Your task to perform on an android device: add a label to a message in the gmail app Image 0: 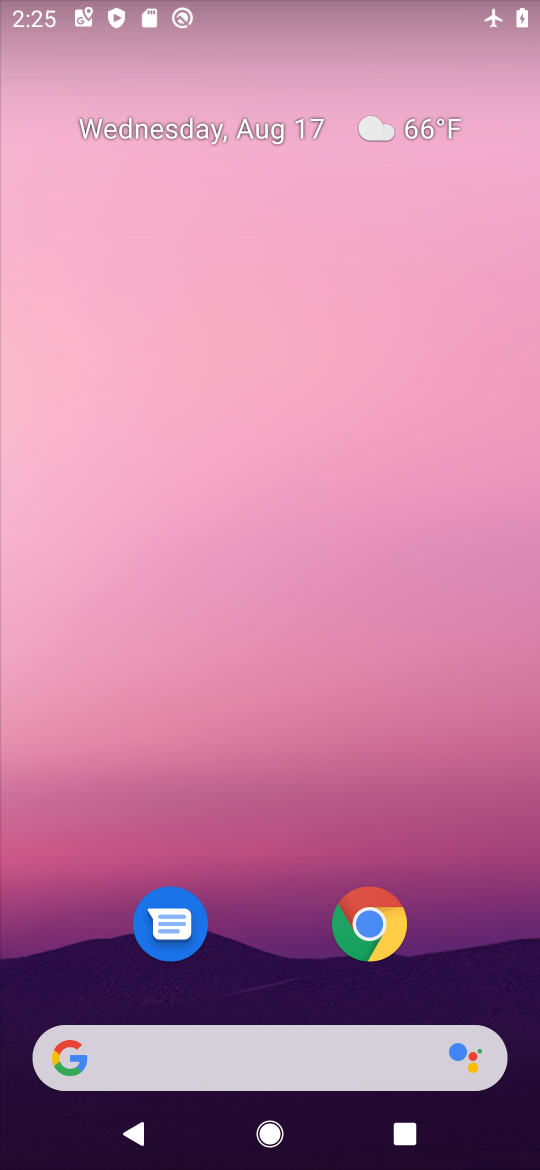
Step 0: press home button
Your task to perform on an android device: add a label to a message in the gmail app Image 1: 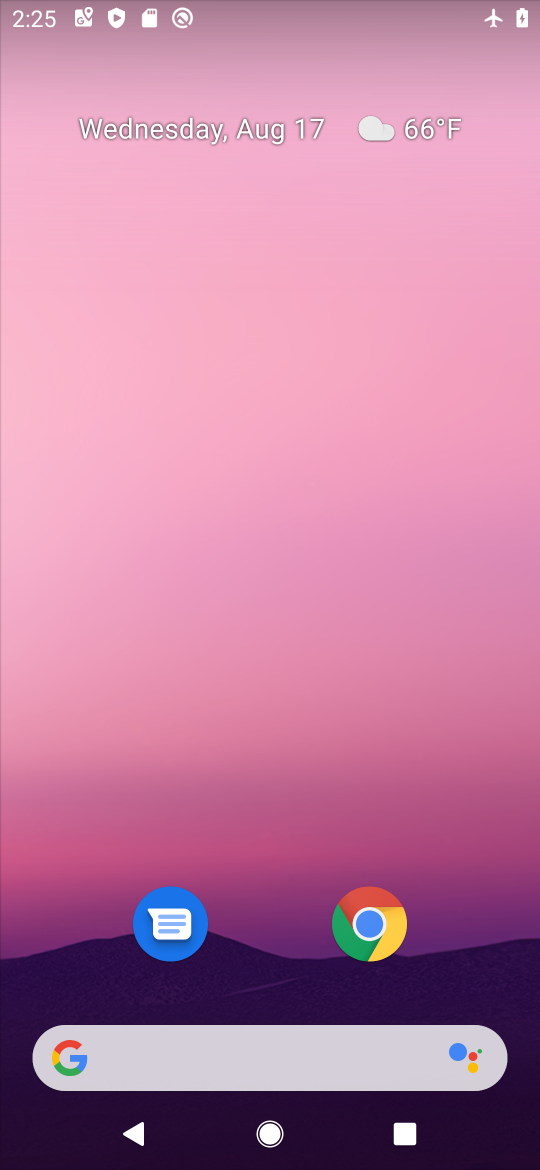
Step 1: drag from (197, 1073) to (238, 211)
Your task to perform on an android device: add a label to a message in the gmail app Image 2: 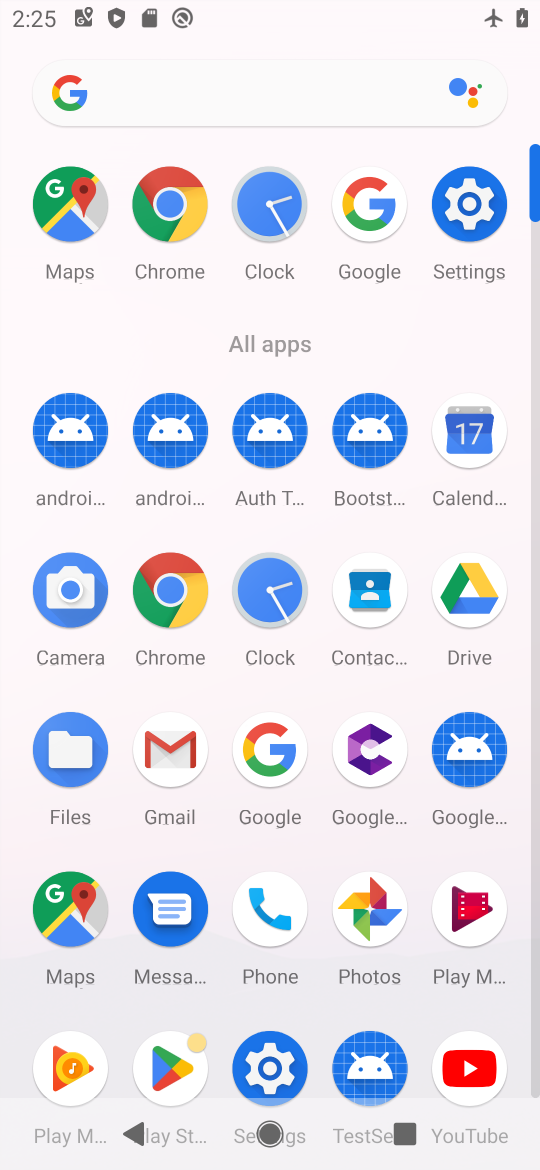
Step 2: click (174, 748)
Your task to perform on an android device: add a label to a message in the gmail app Image 3: 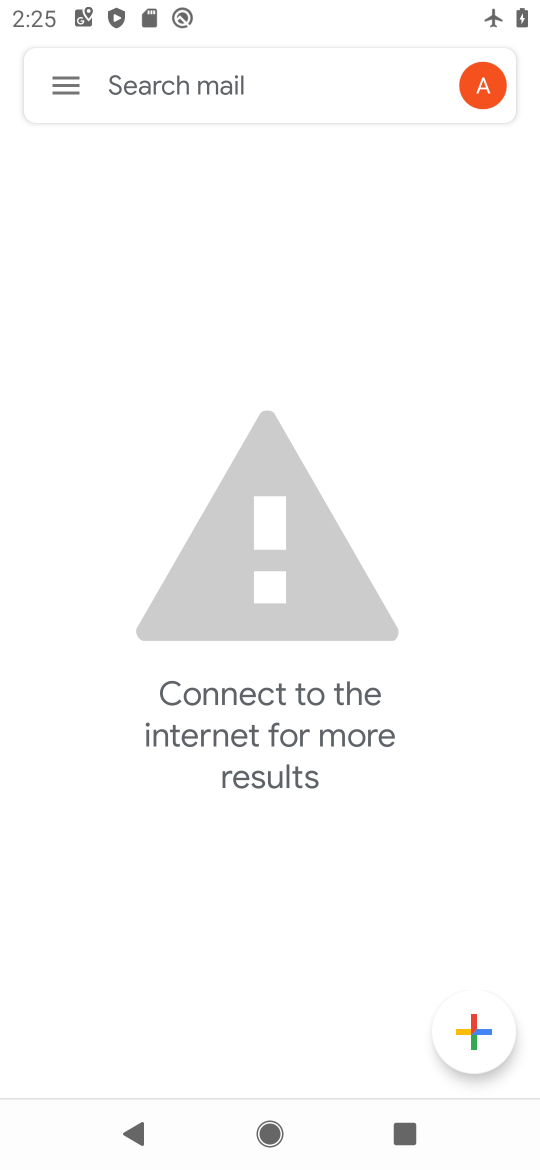
Step 3: click (50, 84)
Your task to perform on an android device: add a label to a message in the gmail app Image 4: 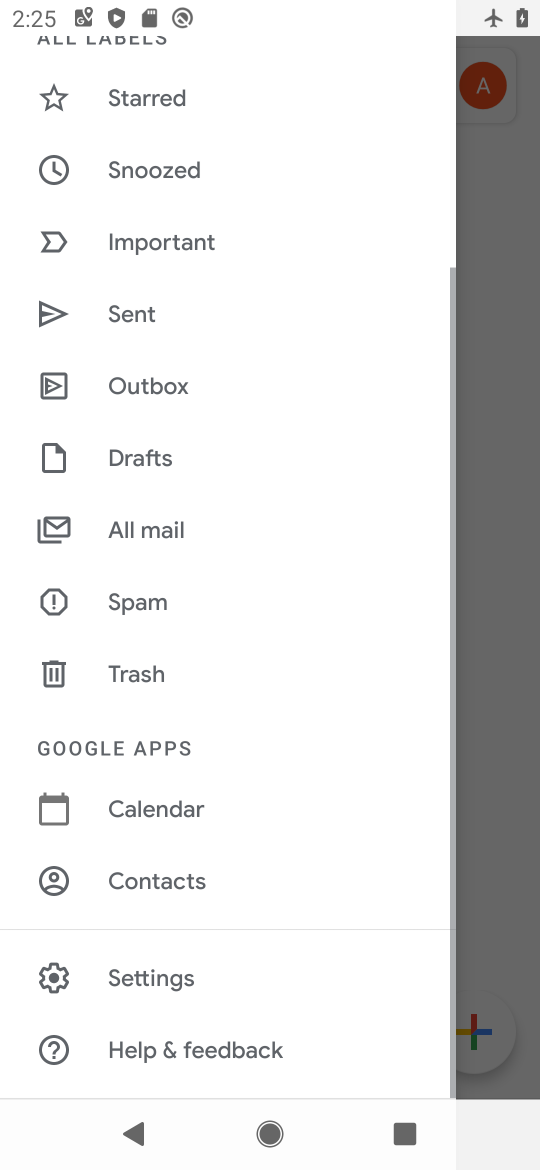
Step 4: drag from (175, 288) to (219, 432)
Your task to perform on an android device: add a label to a message in the gmail app Image 5: 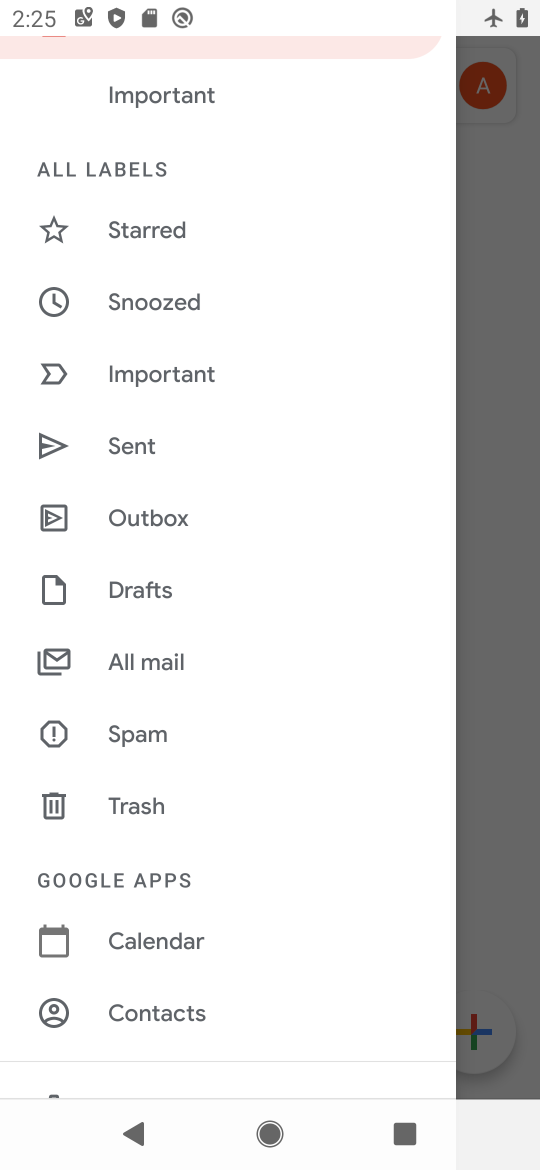
Step 5: click (150, 662)
Your task to perform on an android device: add a label to a message in the gmail app Image 6: 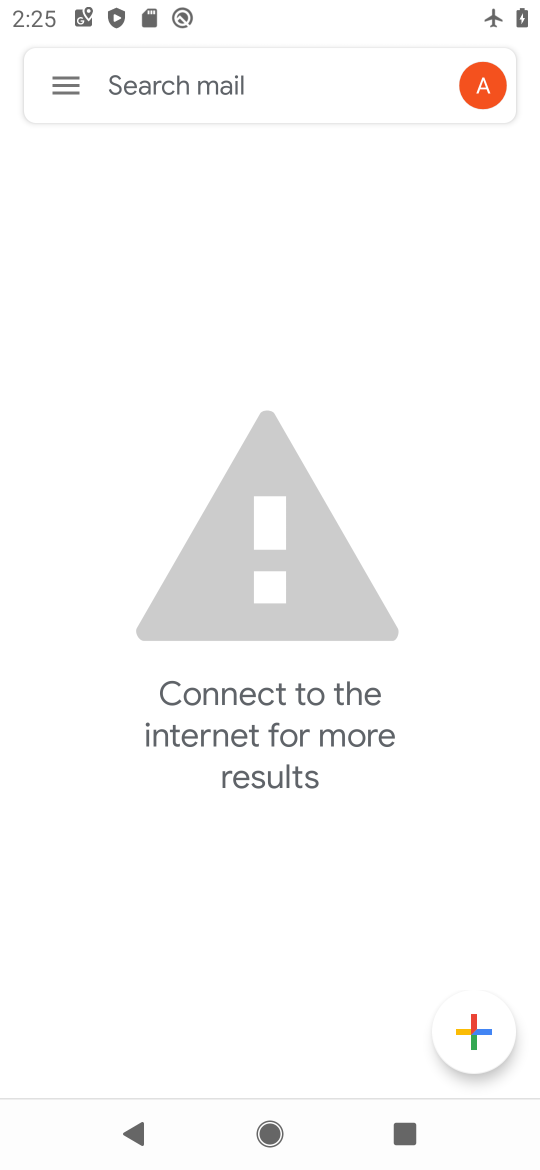
Step 6: click (45, 92)
Your task to perform on an android device: add a label to a message in the gmail app Image 7: 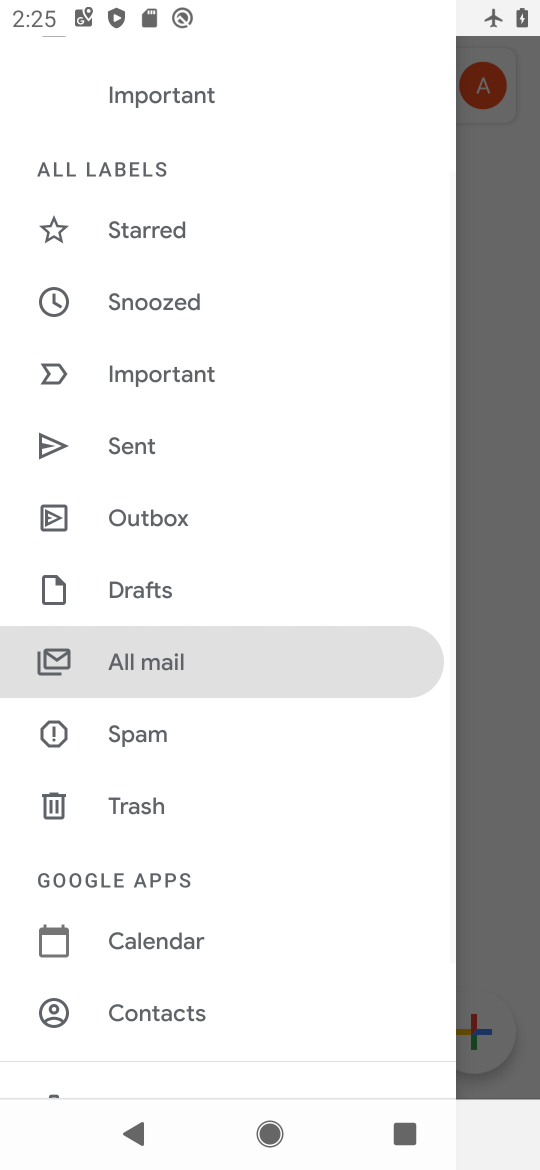
Step 7: drag from (196, 444) to (217, 636)
Your task to perform on an android device: add a label to a message in the gmail app Image 8: 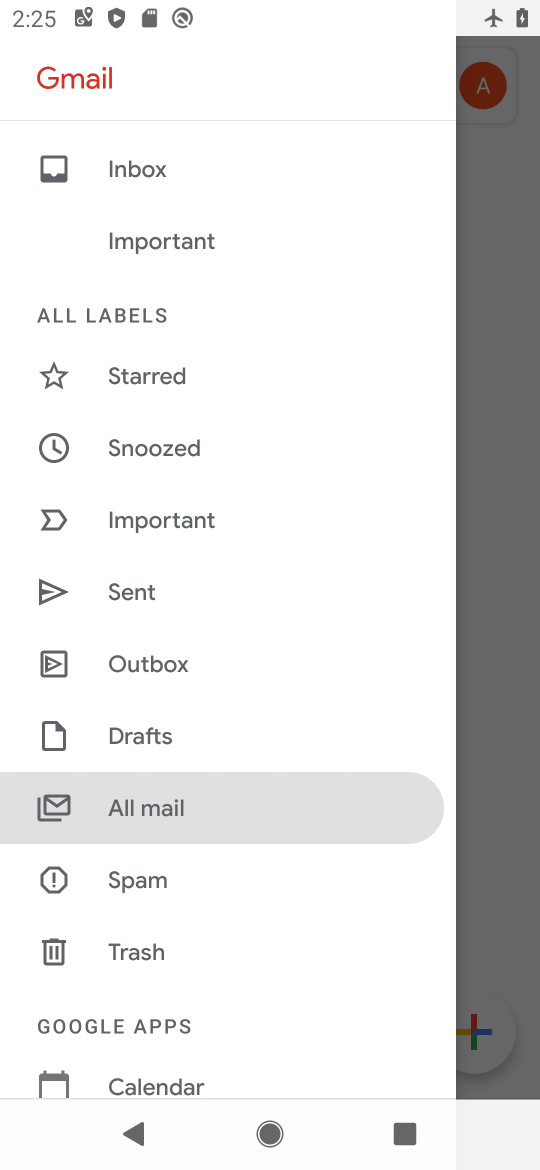
Step 8: click (134, 166)
Your task to perform on an android device: add a label to a message in the gmail app Image 9: 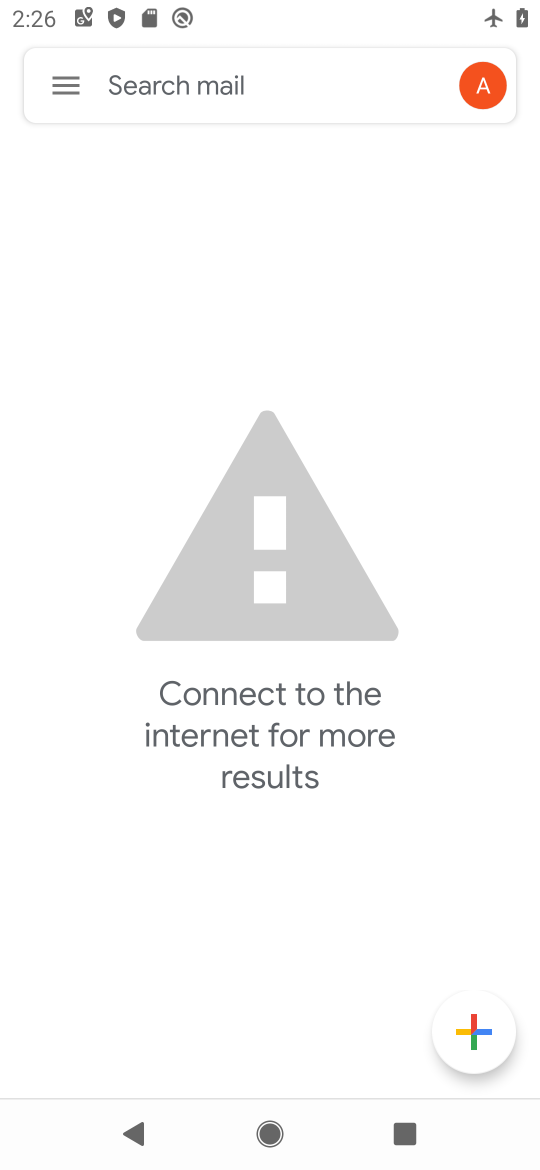
Step 9: press home button
Your task to perform on an android device: add a label to a message in the gmail app Image 10: 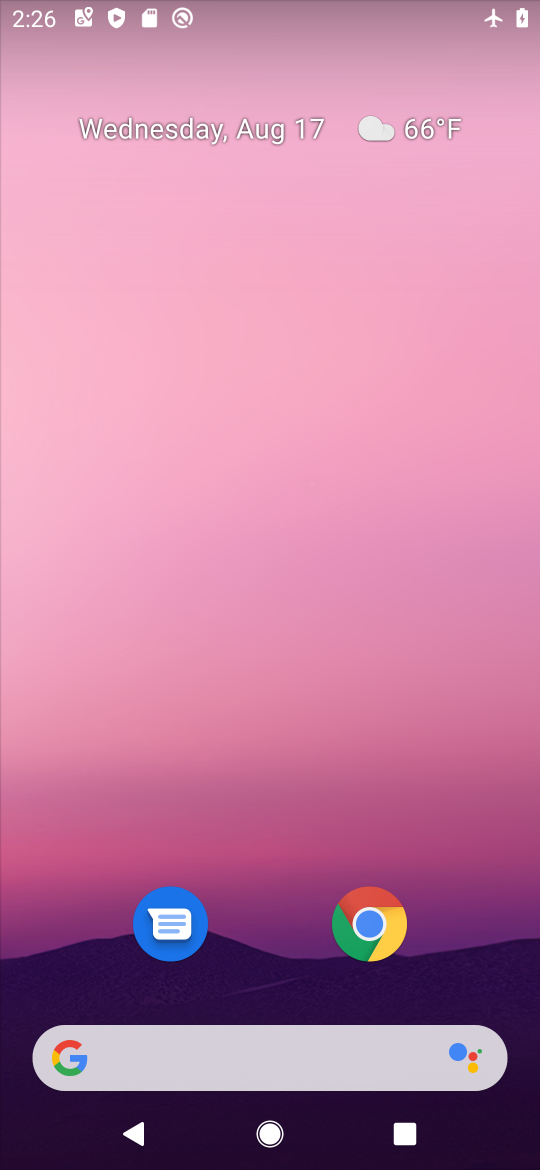
Step 10: drag from (239, 1058) to (287, 177)
Your task to perform on an android device: add a label to a message in the gmail app Image 11: 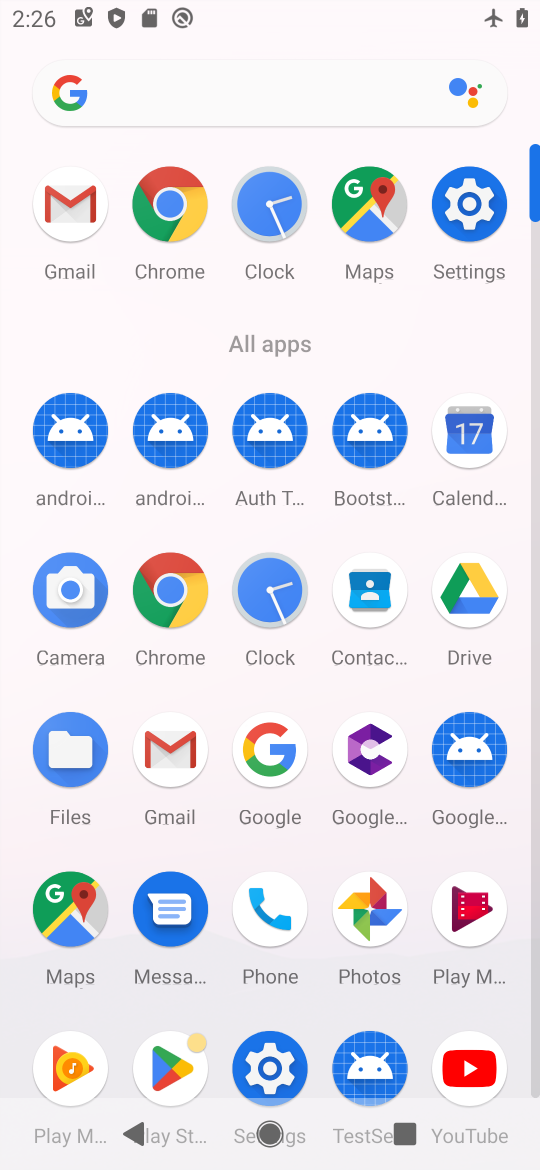
Step 11: click (467, 205)
Your task to perform on an android device: add a label to a message in the gmail app Image 12: 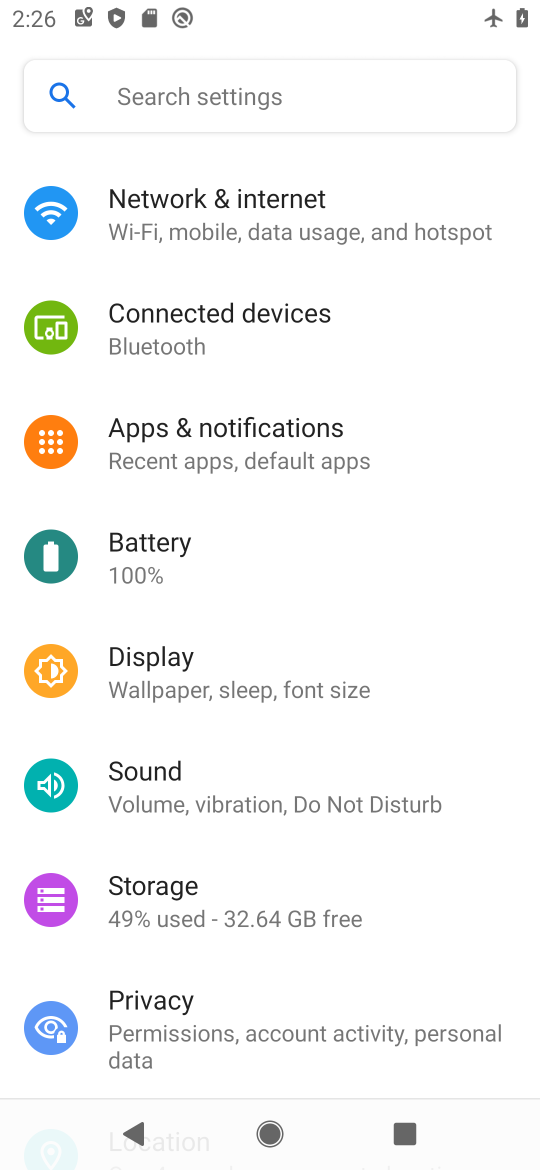
Step 12: click (276, 231)
Your task to perform on an android device: add a label to a message in the gmail app Image 13: 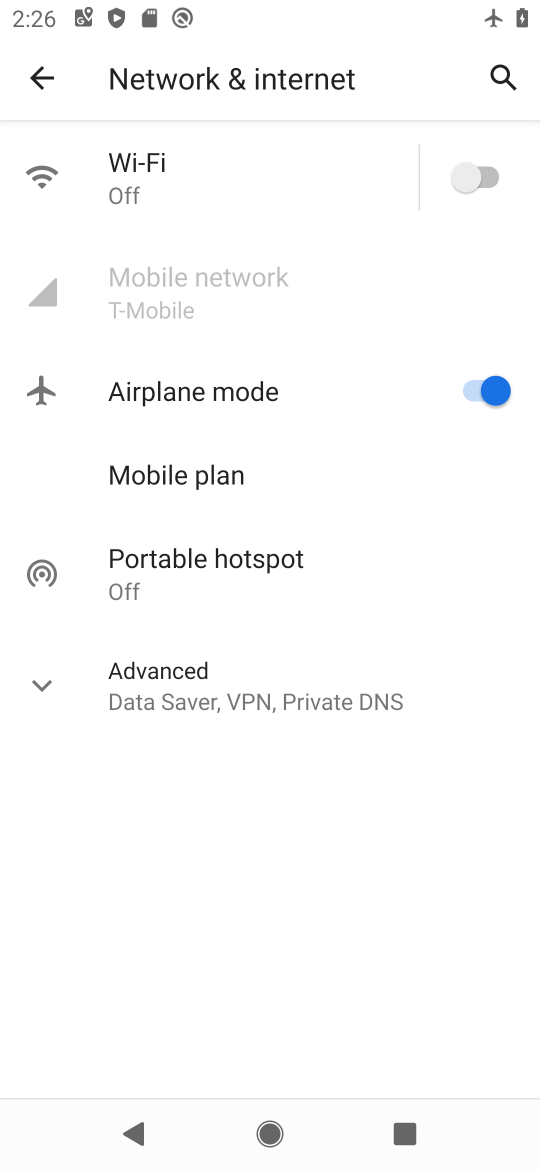
Step 13: click (476, 392)
Your task to perform on an android device: add a label to a message in the gmail app Image 14: 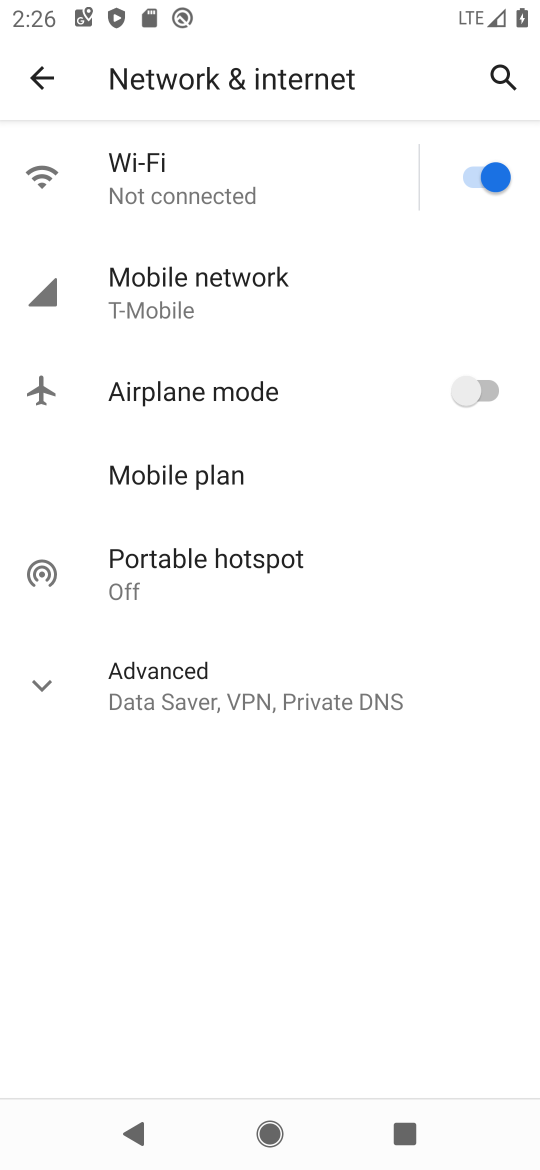
Step 14: press home button
Your task to perform on an android device: add a label to a message in the gmail app Image 15: 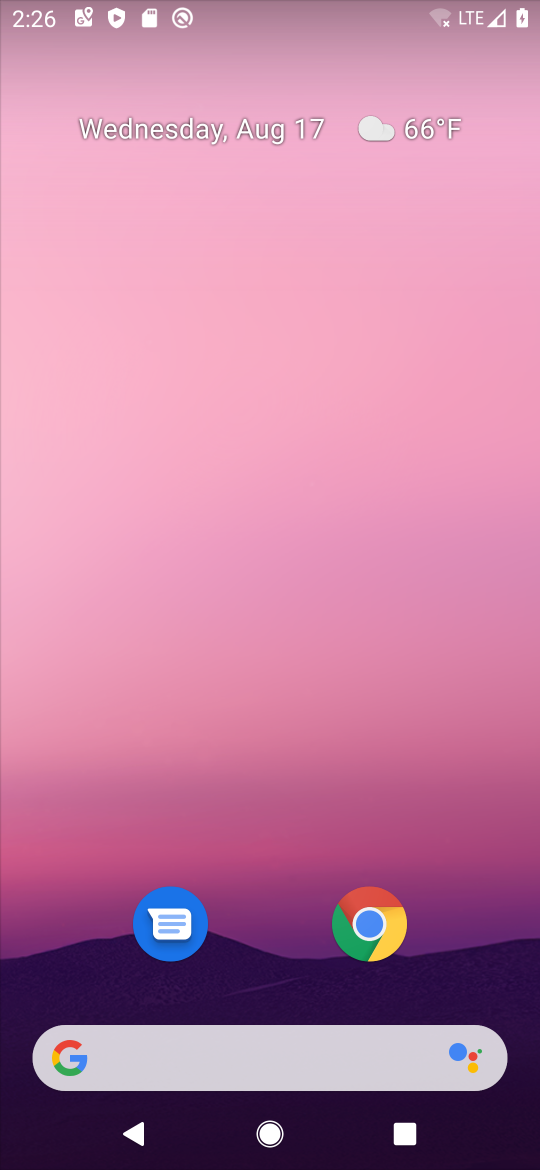
Step 15: drag from (276, 1049) to (254, 467)
Your task to perform on an android device: add a label to a message in the gmail app Image 16: 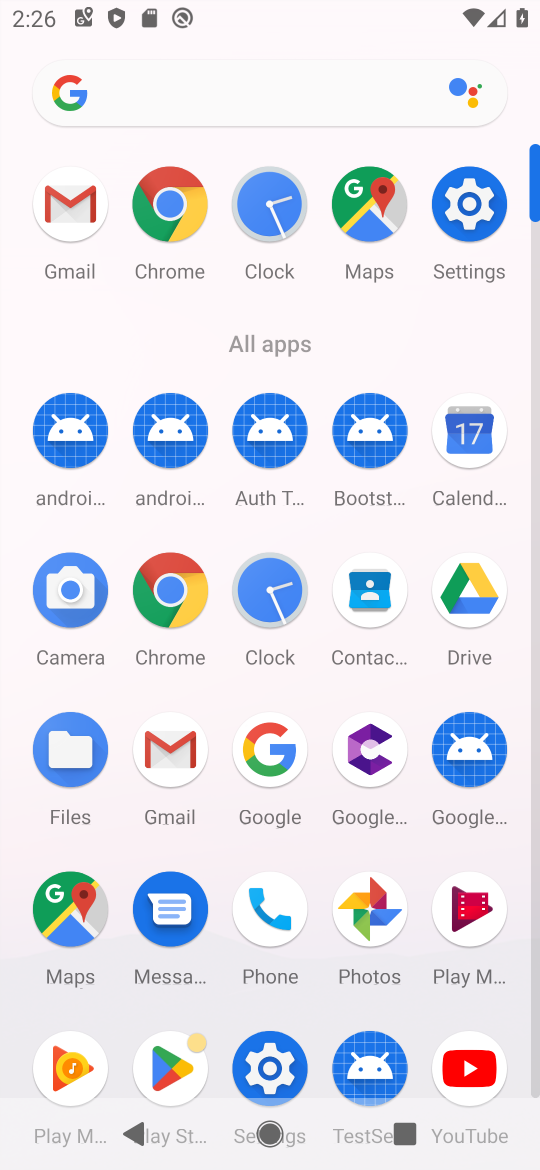
Step 16: click (65, 206)
Your task to perform on an android device: add a label to a message in the gmail app Image 17: 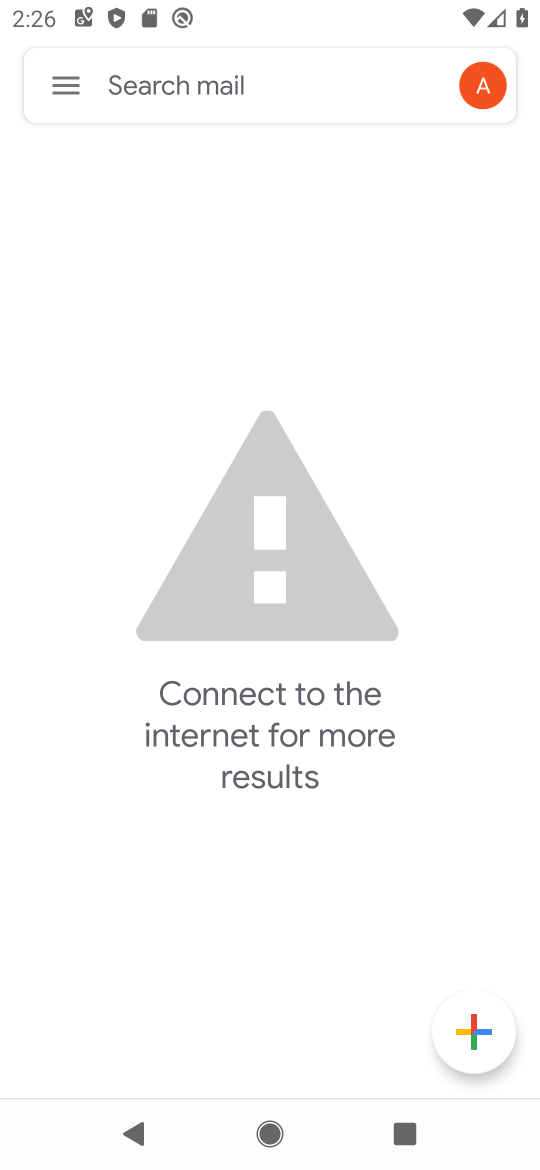
Step 17: click (58, 81)
Your task to perform on an android device: add a label to a message in the gmail app Image 18: 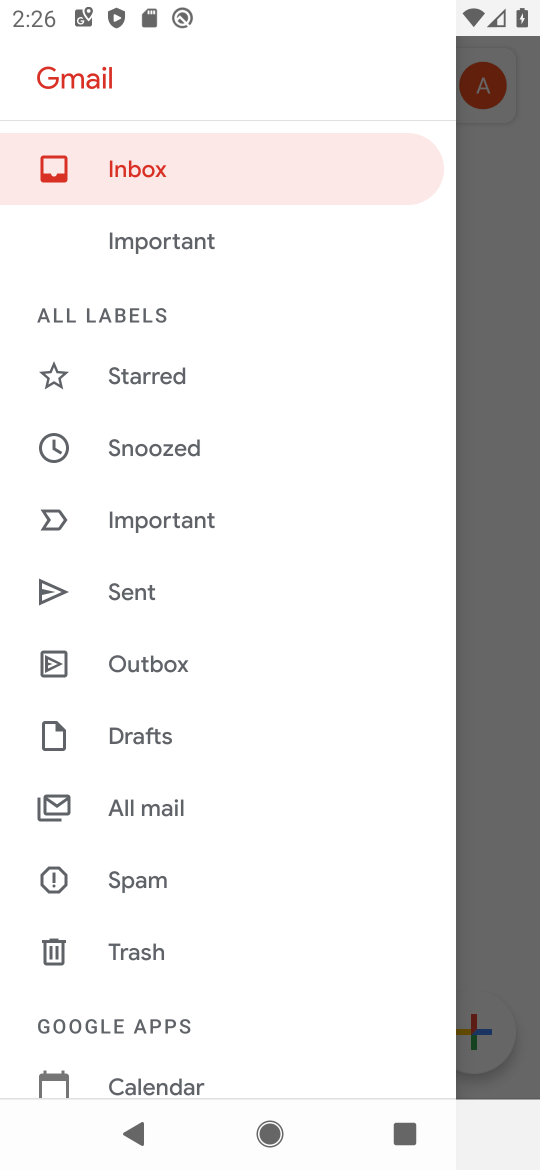
Step 18: click (133, 806)
Your task to perform on an android device: add a label to a message in the gmail app Image 19: 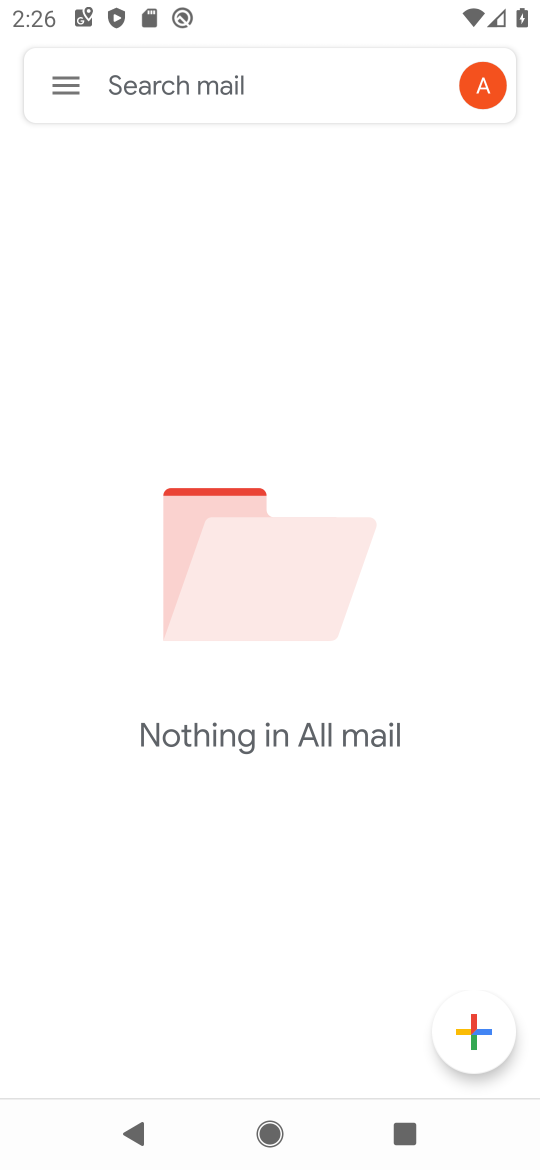
Step 19: click (64, 93)
Your task to perform on an android device: add a label to a message in the gmail app Image 20: 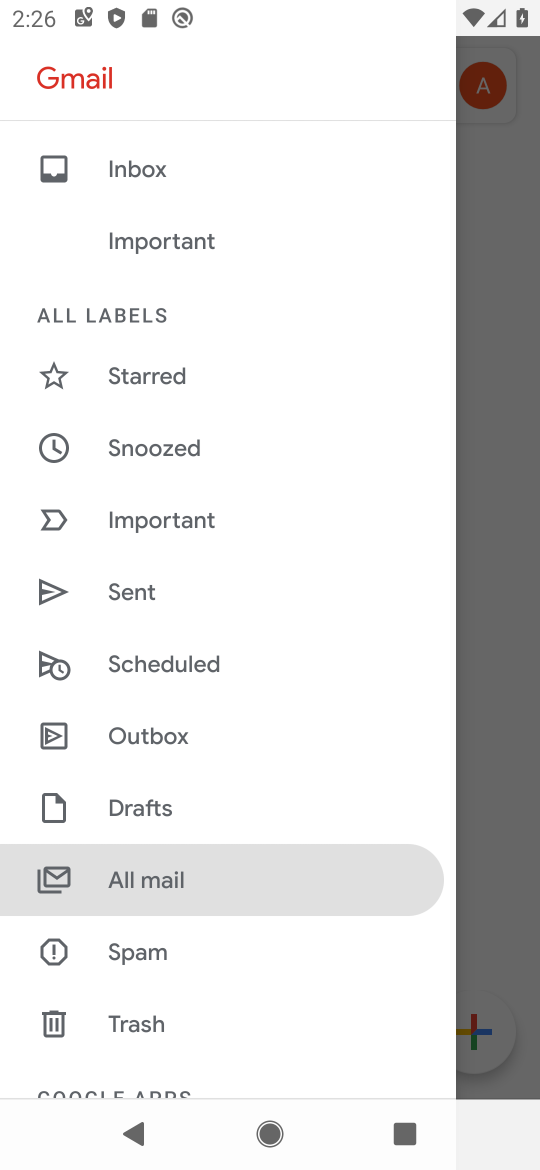
Step 20: click (137, 171)
Your task to perform on an android device: add a label to a message in the gmail app Image 21: 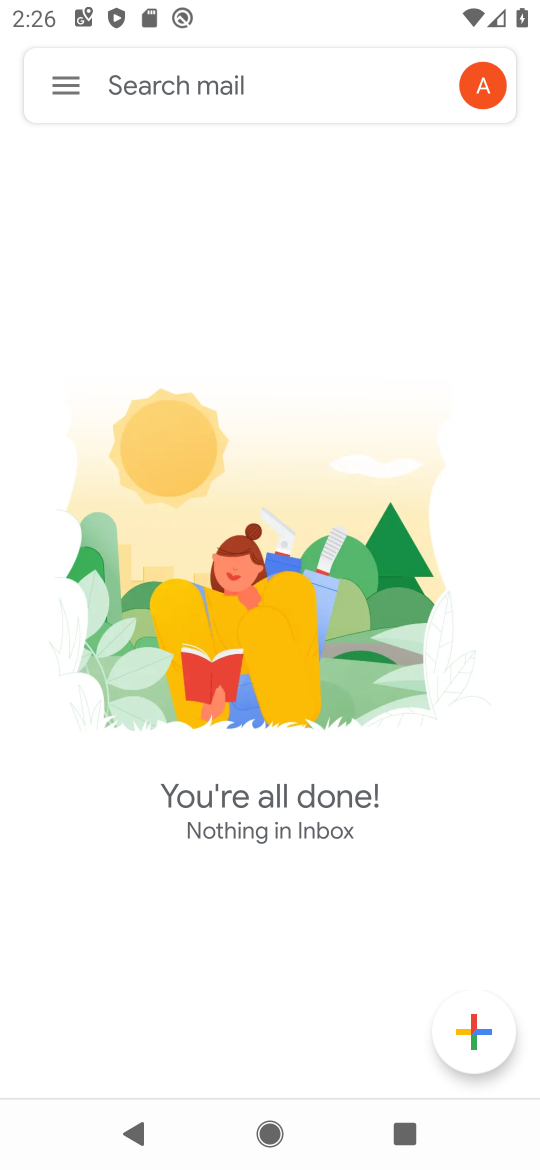
Step 21: task complete